Your task to perform on an android device: Open network settings Image 0: 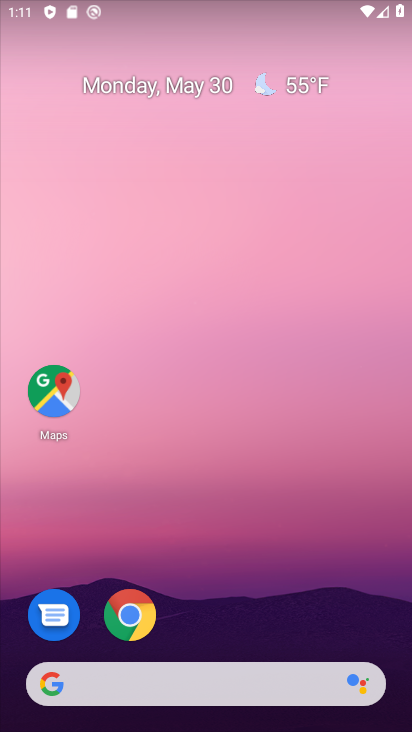
Step 0: drag from (213, 640) to (278, 102)
Your task to perform on an android device: Open network settings Image 1: 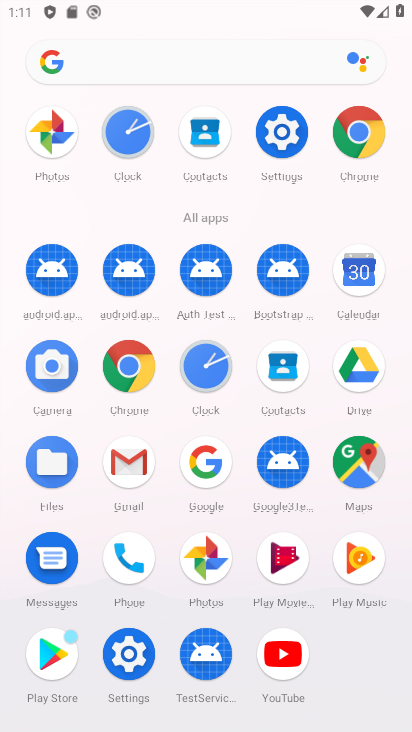
Step 1: click (107, 679)
Your task to perform on an android device: Open network settings Image 2: 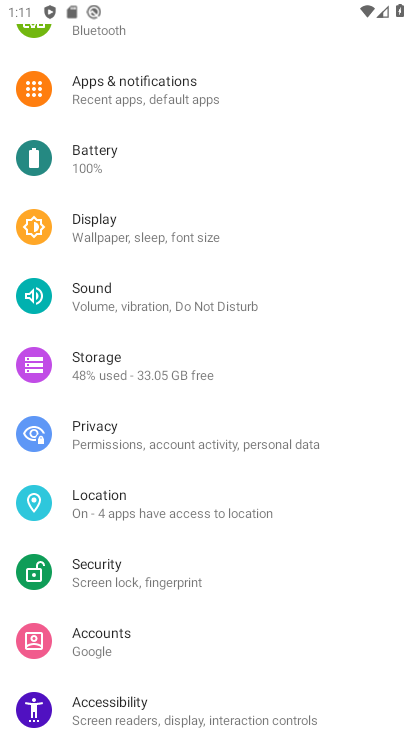
Step 2: drag from (271, 132) to (255, 538)
Your task to perform on an android device: Open network settings Image 3: 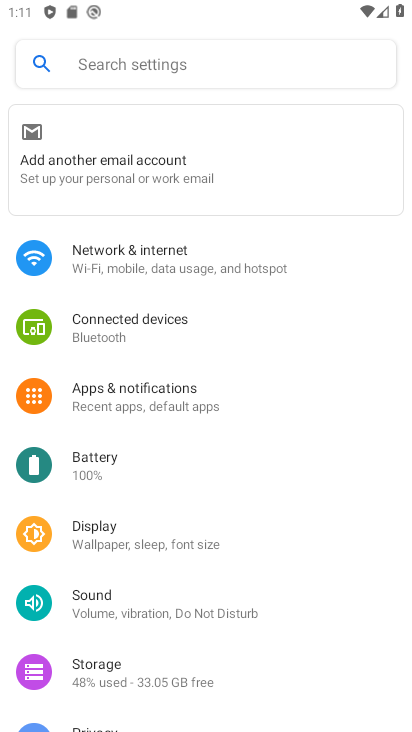
Step 3: click (239, 255)
Your task to perform on an android device: Open network settings Image 4: 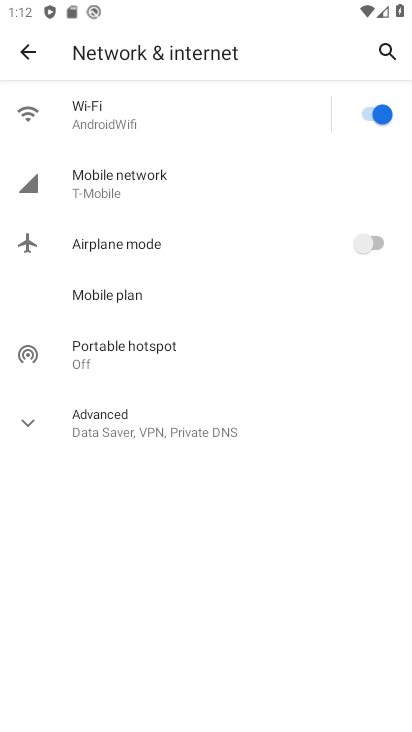
Step 4: click (210, 185)
Your task to perform on an android device: Open network settings Image 5: 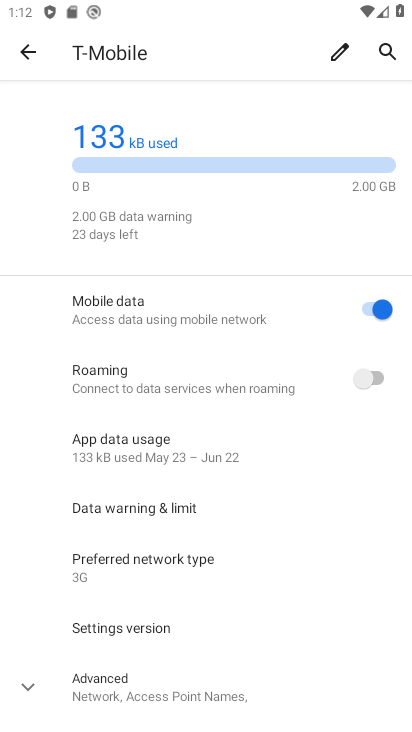
Step 5: task complete